Your task to perform on an android device: turn on airplane mode Image 0: 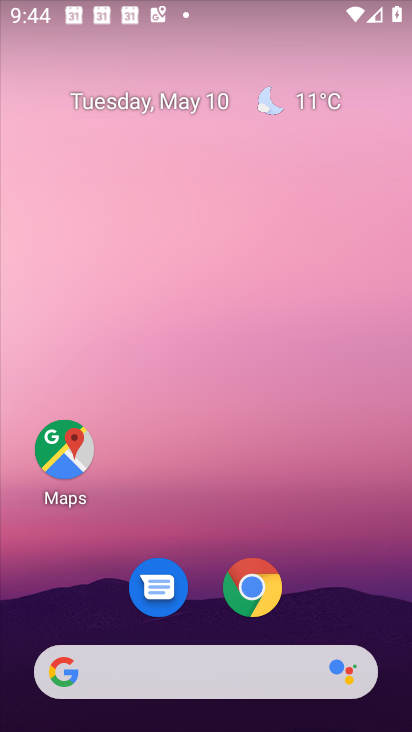
Step 0: drag from (359, 605) to (367, 129)
Your task to perform on an android device: turn on airplane mode Image 1: 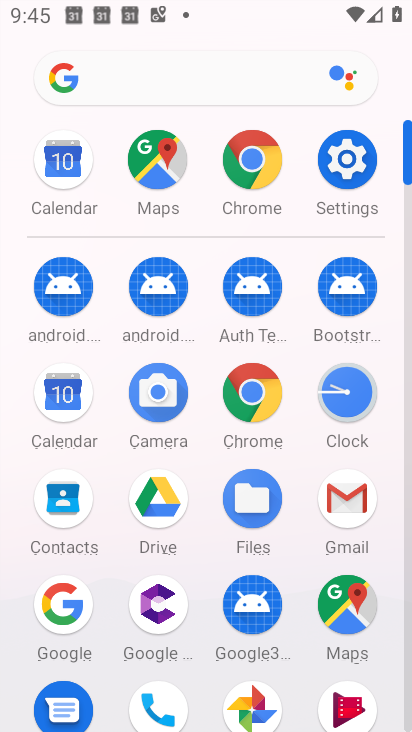
Step 1: click (355, 192)
Your task to perform on an android device: turn on airplane mode Image 2: 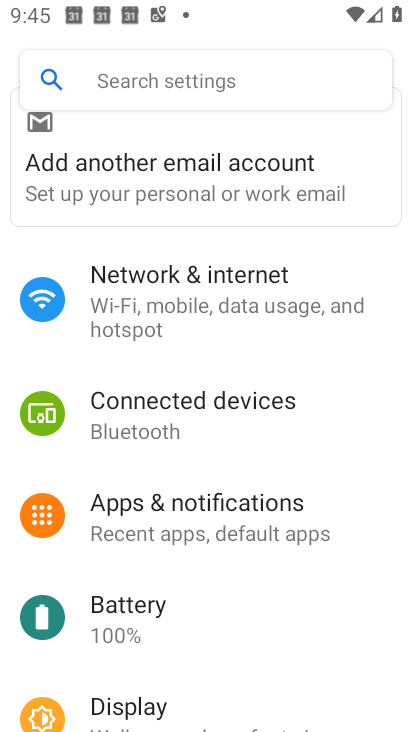
Step 2: click (175, 332)
Your task to perform on an android device: turn on airplane mode Image 3: 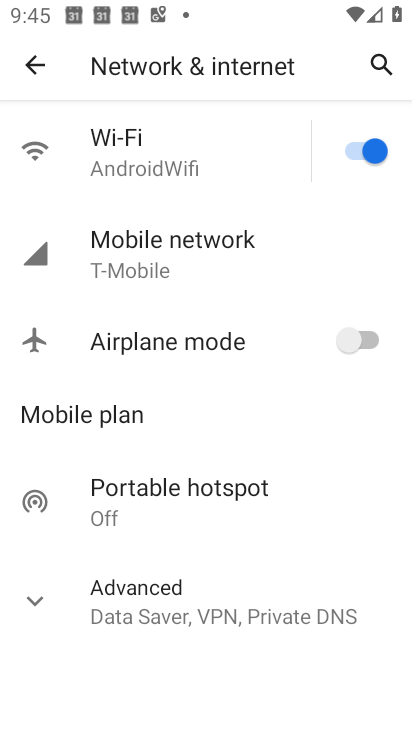
Step 3: click (371, 339)
Your task to perform on an android device: turn on airplane mode Image 4: 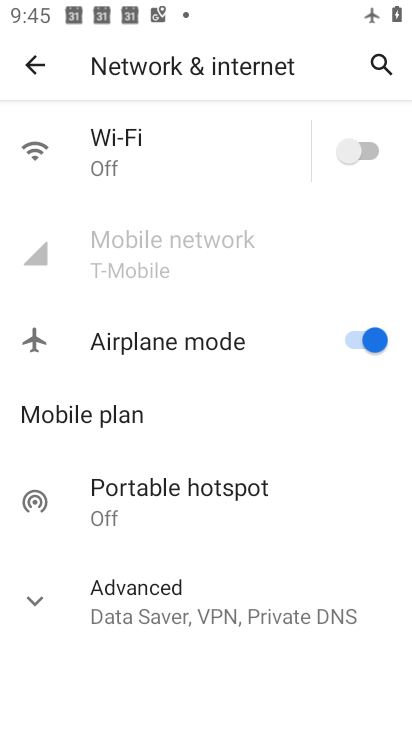
Step 4: task complete